Your task to perform on an android device: Search for lg ultragear on amazon, select the first entry, add it to the cart, then select checkout. Image 0: 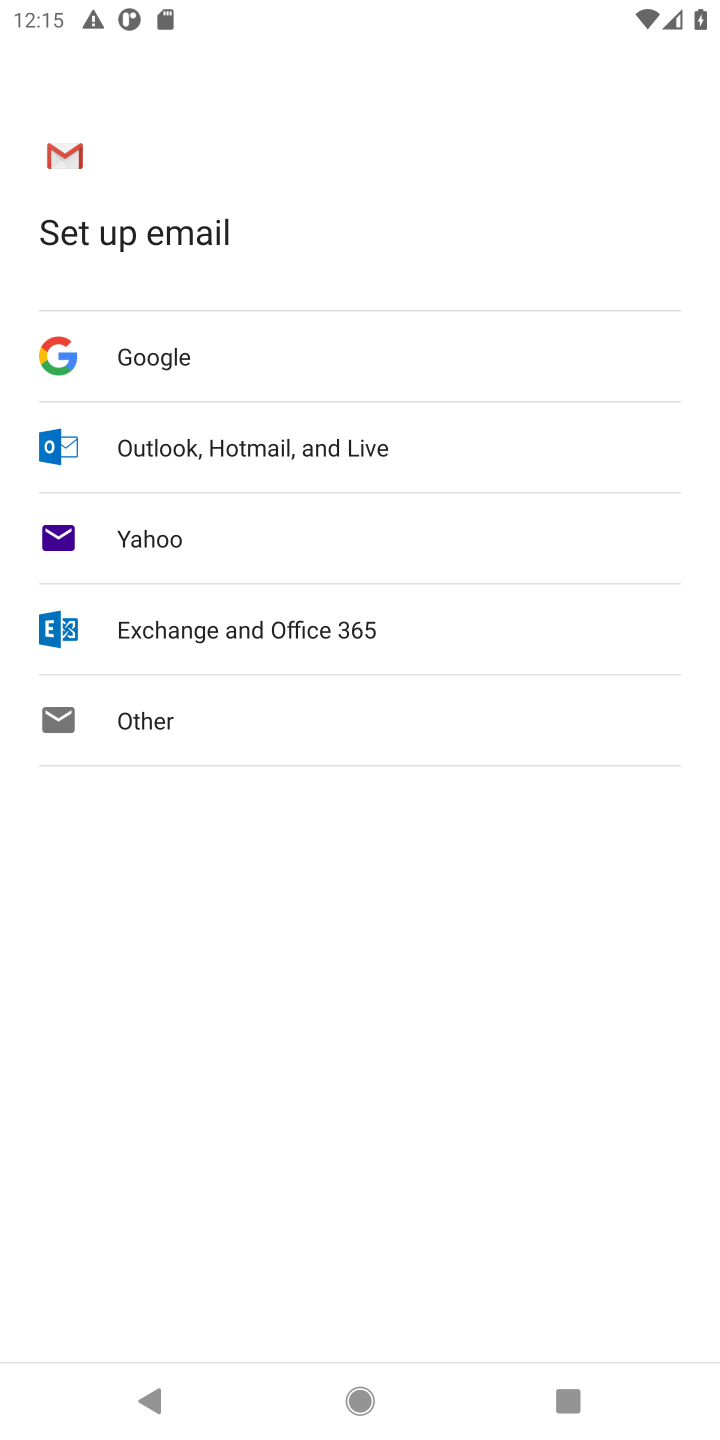
Step 0: press home button
Your task to perform on an android device: Search for lg ultragear on amazon, select the first entry, add it to the cart, then select checkout. Image 1: 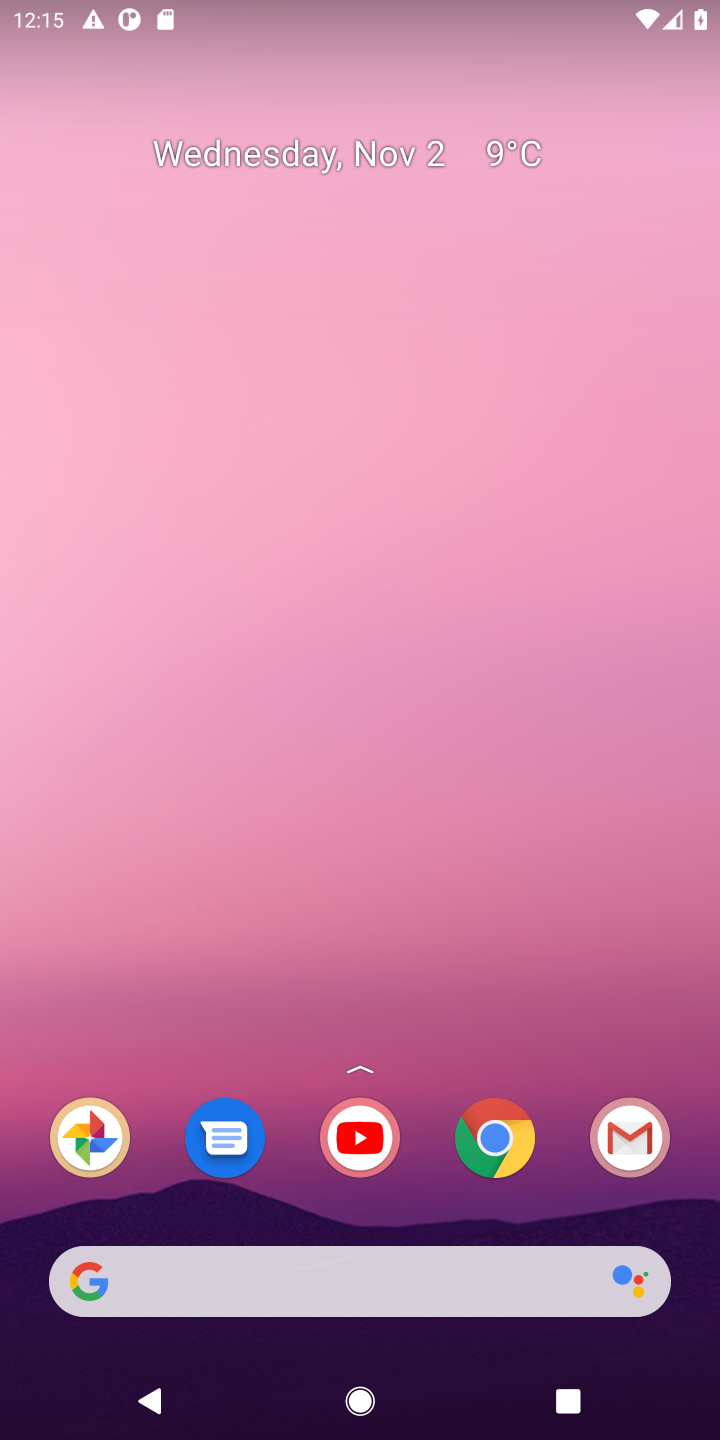
Step 1: click (457, 1281)
Your task to perform on an android device: Search for lg ultragear on amazon, select the first entry, add it to the cart, then select checkout. Image 2: 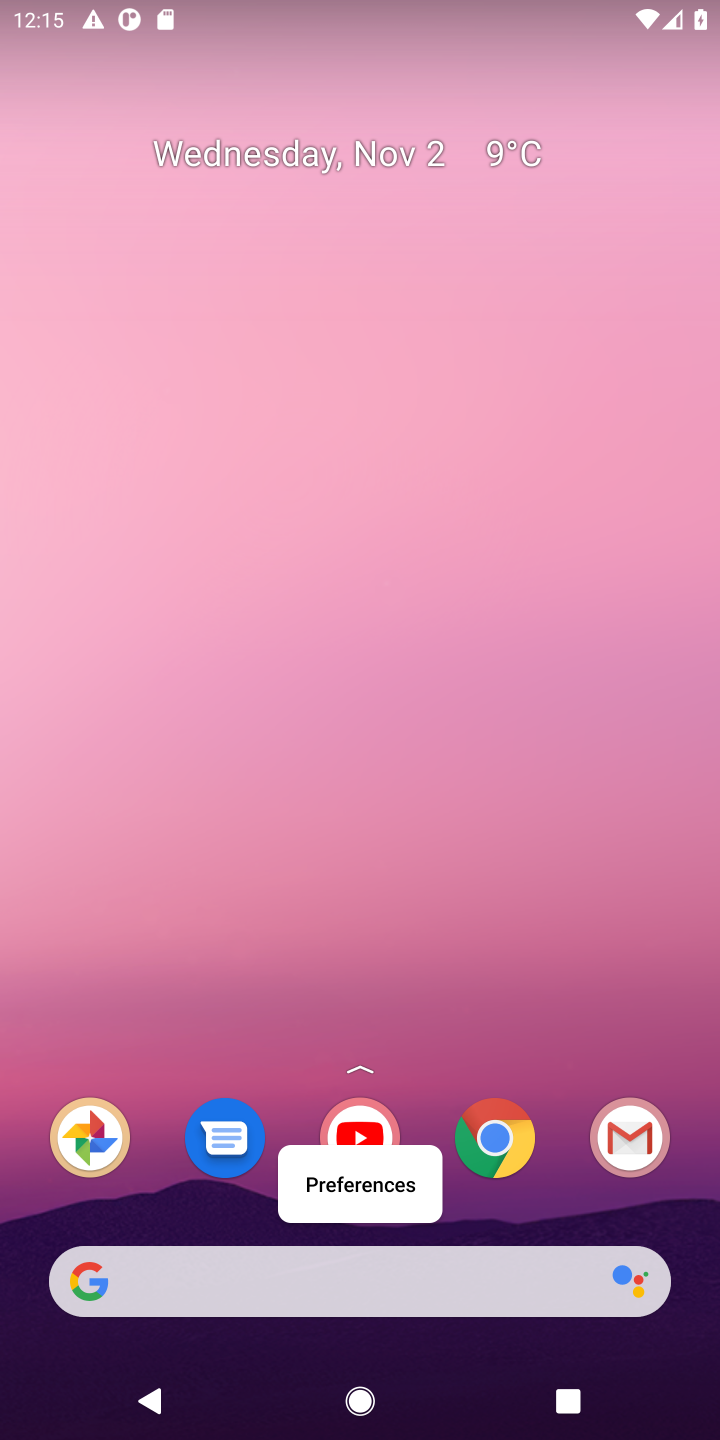
Step 2: click (397, 1294)
Your task to perform on an android device: Search for lg ultragear on amazon, select the first entry, add it to the cart, then select checkout. Image 3: 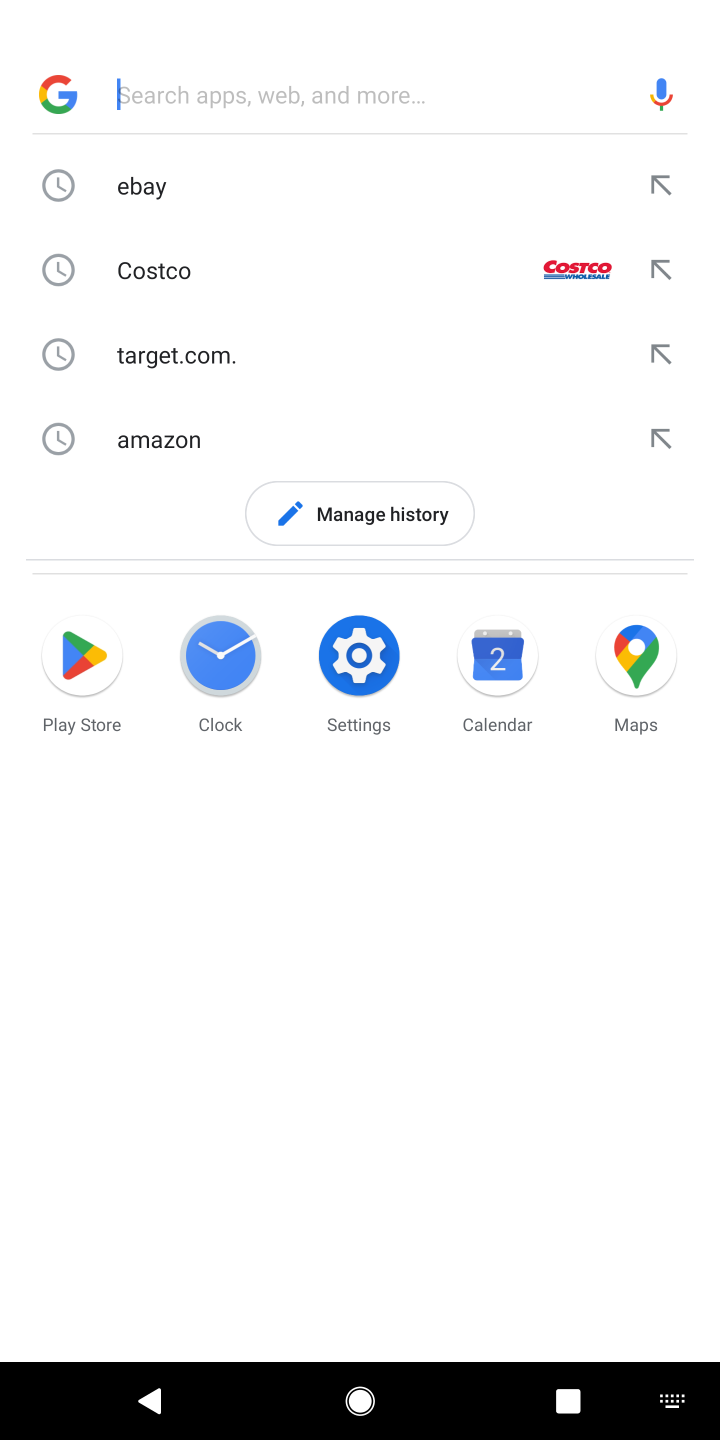
Step 3: click (130, 422)
Your task to perform on an android device: Search for lg ultragear on amazon, select the first entry, add it to the cart, then select checkout. Image 4: 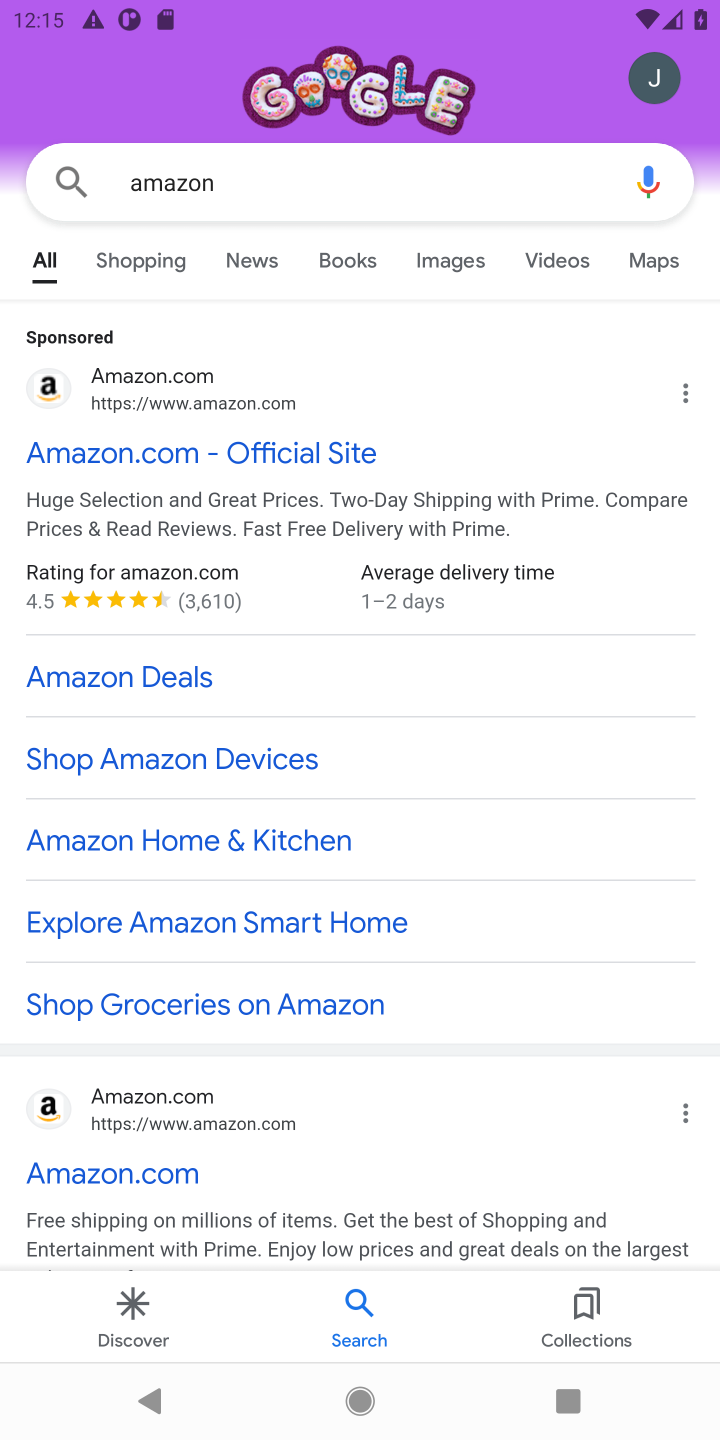
Step 4: click (97, 436)
Your task to perform on an android device: Search for lg ultragear on amazon, select the first entry, add it to the cart, then select checkout. Image 5: 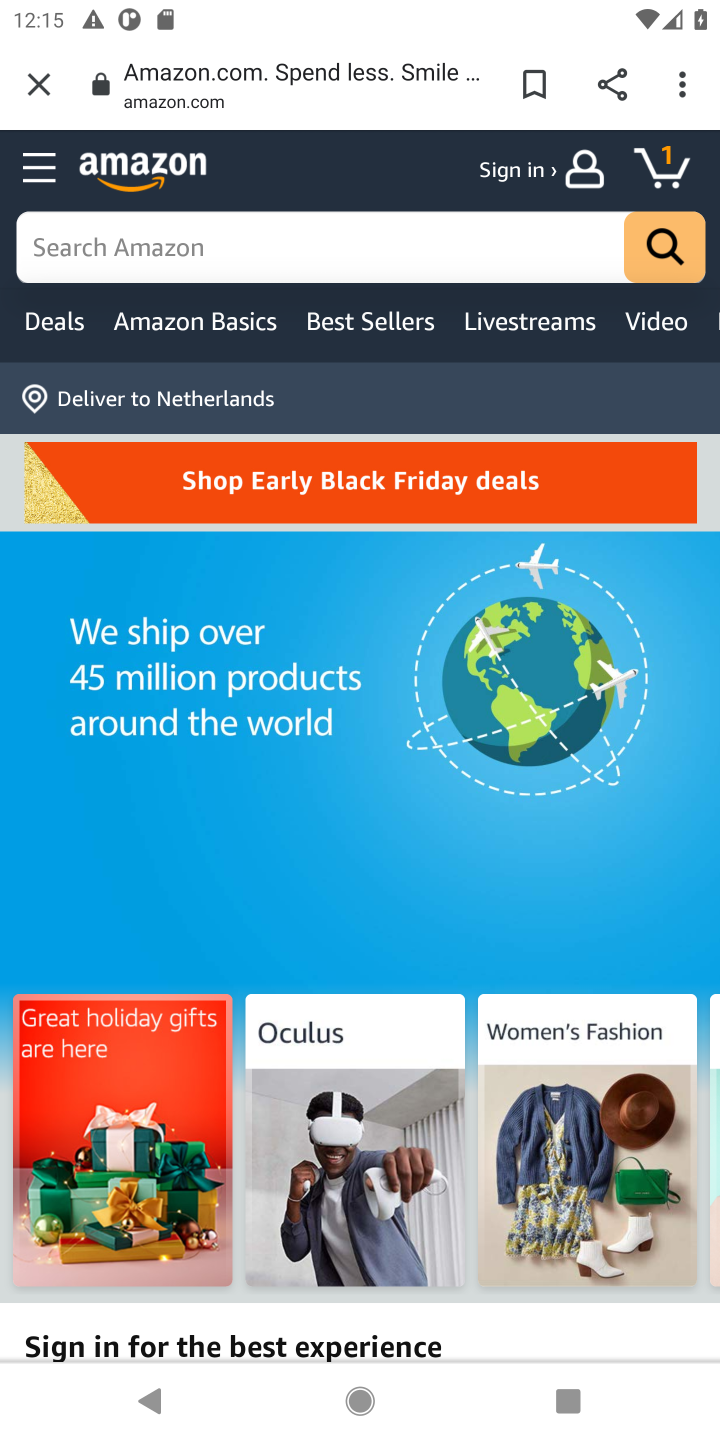
Step 5: click (273, 266)
Your task to perform on an android device: Search for lg ultragear on amazon, select the first entry, add it to the cart, then select checkout. Image 6: 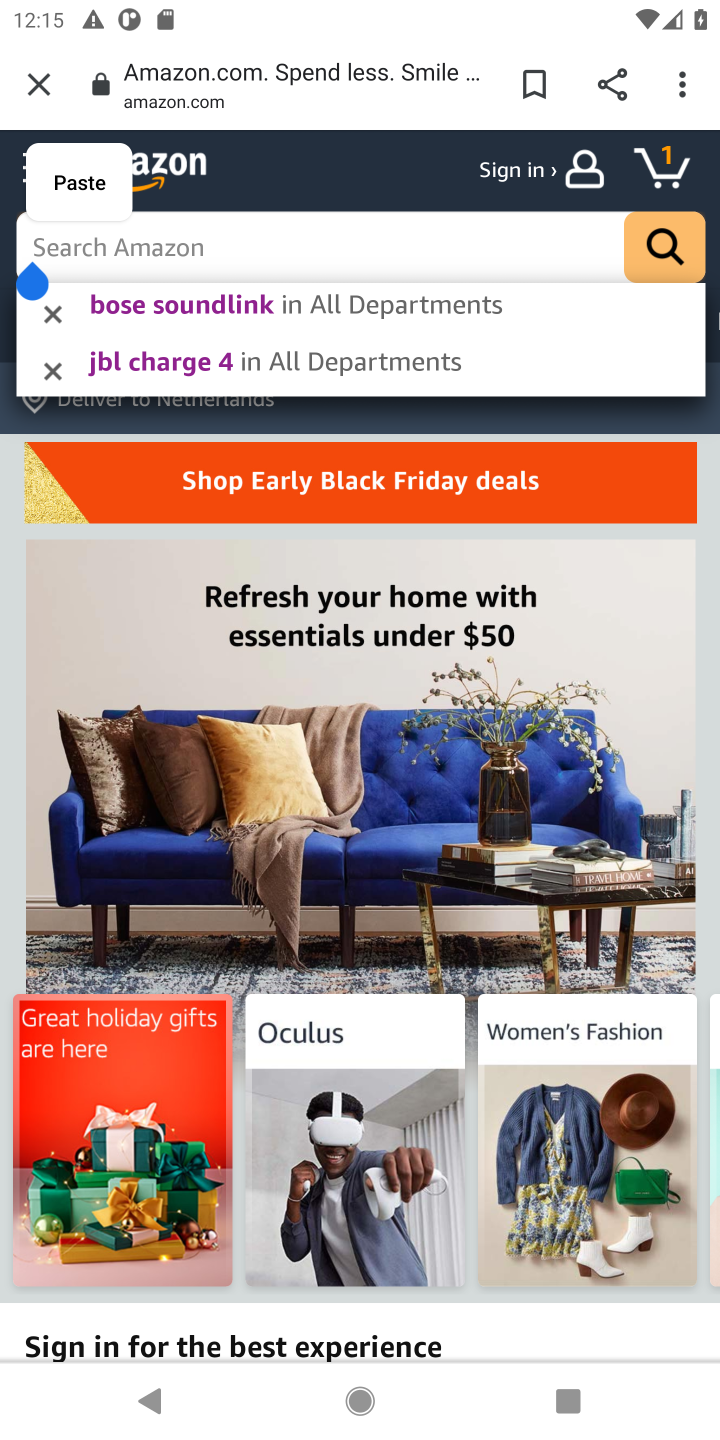
Step 6: click (700, 1270)
Your task to perform on an android device: Search for lg ultragear on amazon, select the first entry, add it to the cart, then select checkout. Image 7: 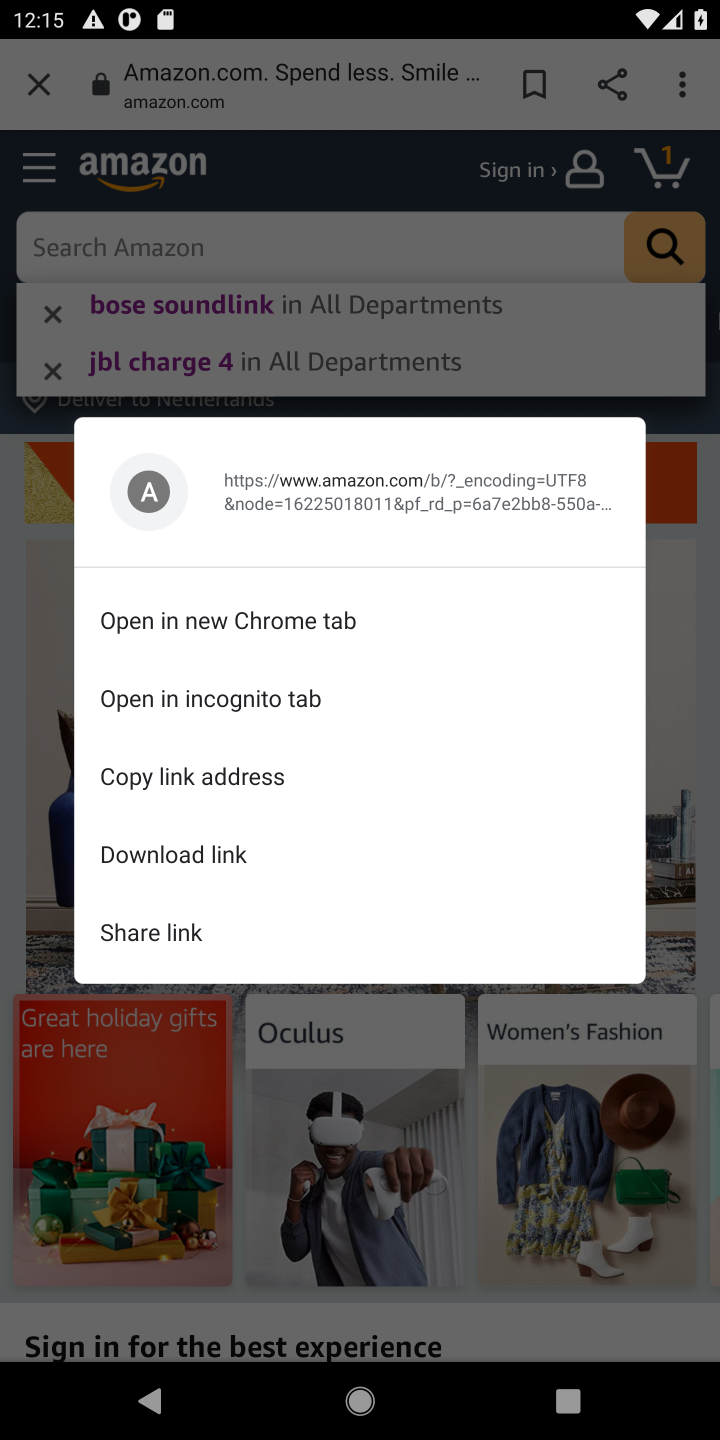
Step 7: type "lg ultragear"
Your task to perform on an android device: Search for lg ultragear on amazon, select the first entry, add it to the cart, then select checkout. Image 8: 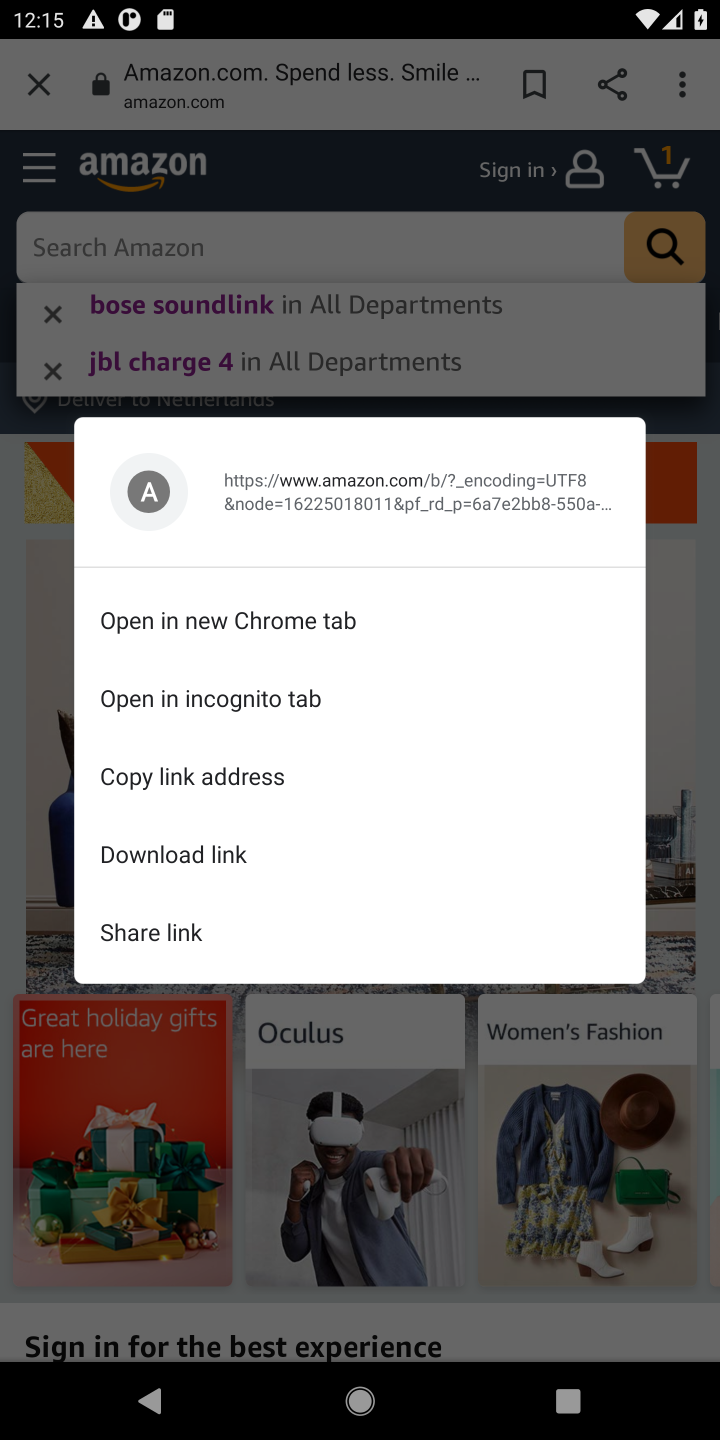
Step 8: click (674, 778)
Your task to perform on an android device: Search for lg ultragear on amazon, select the first entry, add it to the cart, then select checkout. Image 9: 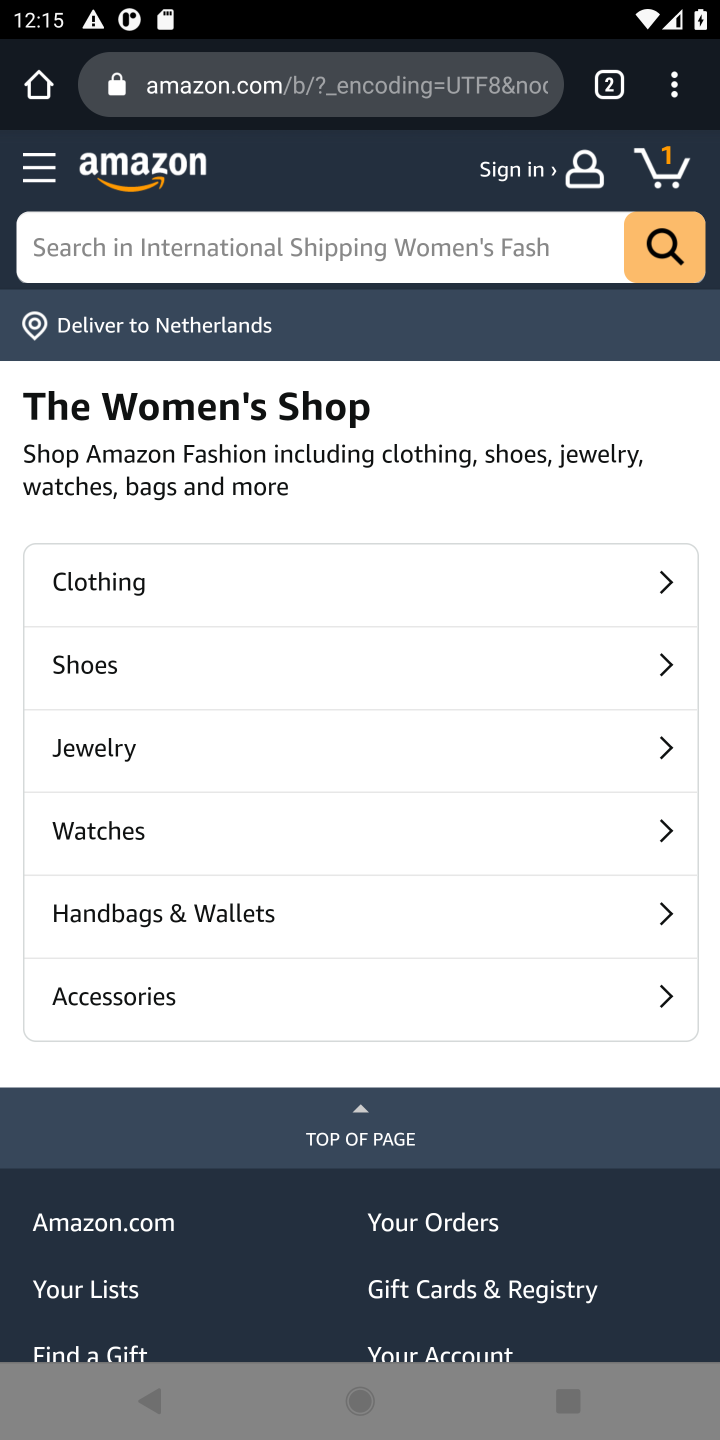
Step 9: click (415, 240)
Your task to perform on an android device: Search for lg ultragear on amazon, select the first entry, add it to the cart, then select checkout. Image 10: 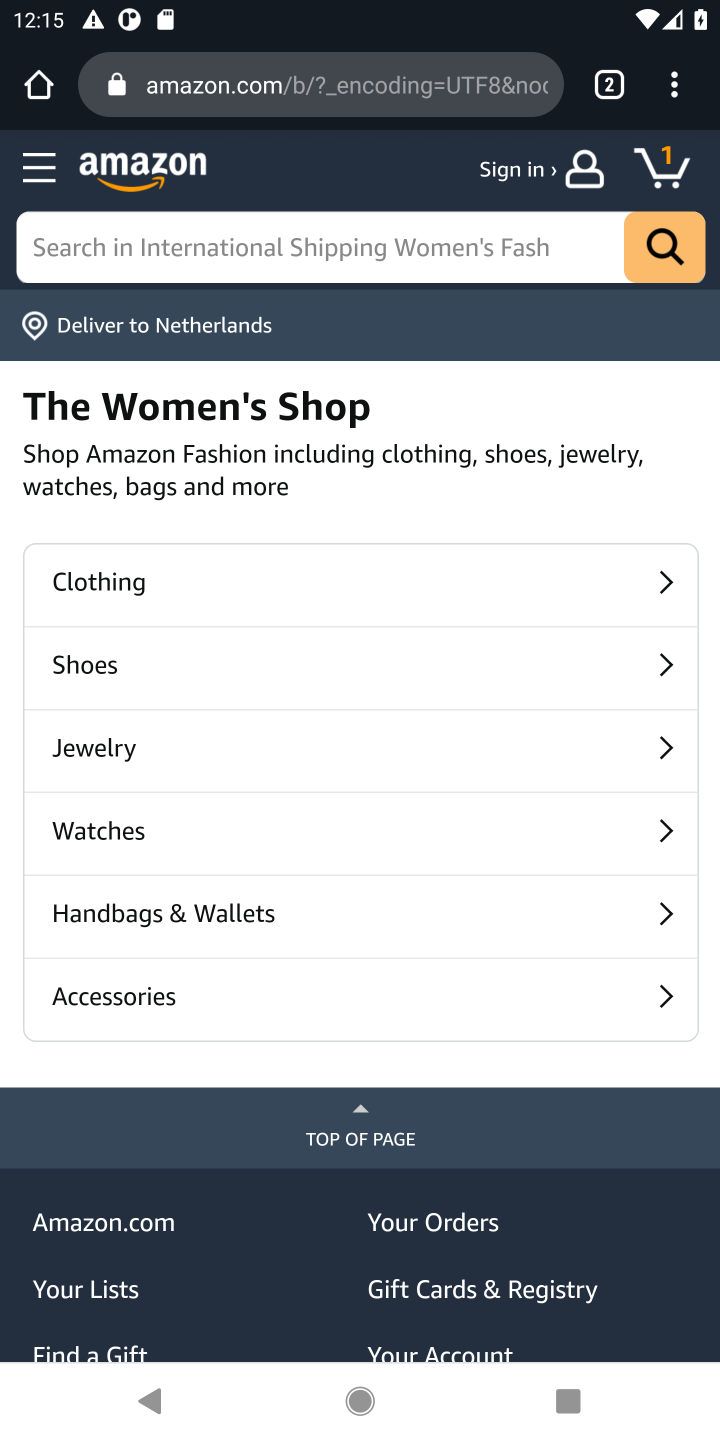
Step 10: click (208, 242)
Your task to perform on an android device: Search for lg ultragear on amazon, select the first entry, add it to the cart, then select checkout. Image 11: 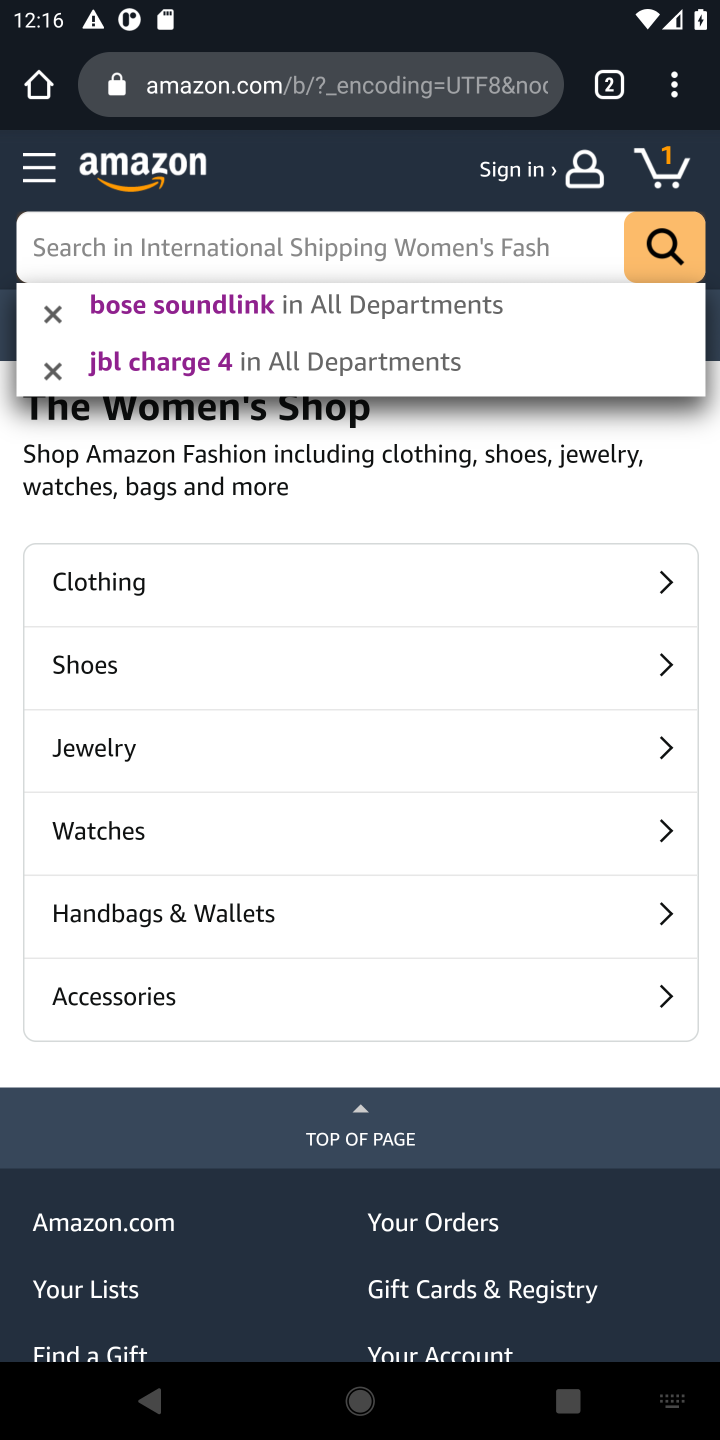
Step 11: type "lg ultragear"
Your task to perform on an android device: Search for lg ultragear on amazon, select the first entry, add it to the cart, then select checkout. Image 12: 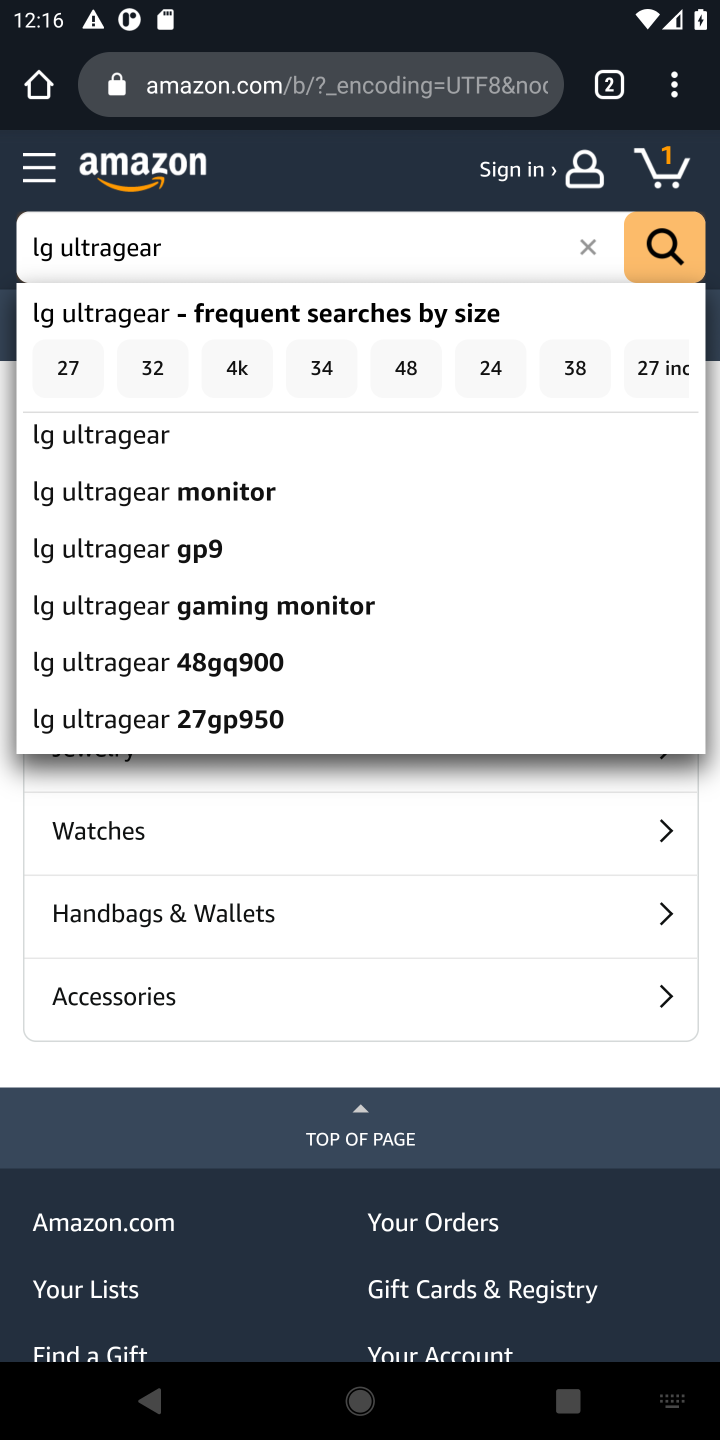
Step 12: click (667, 254)
Your task to perform on an android device: Search for lg ultragear on amazon, select the first entry, add it to the cart, then select checkout. Image 13: 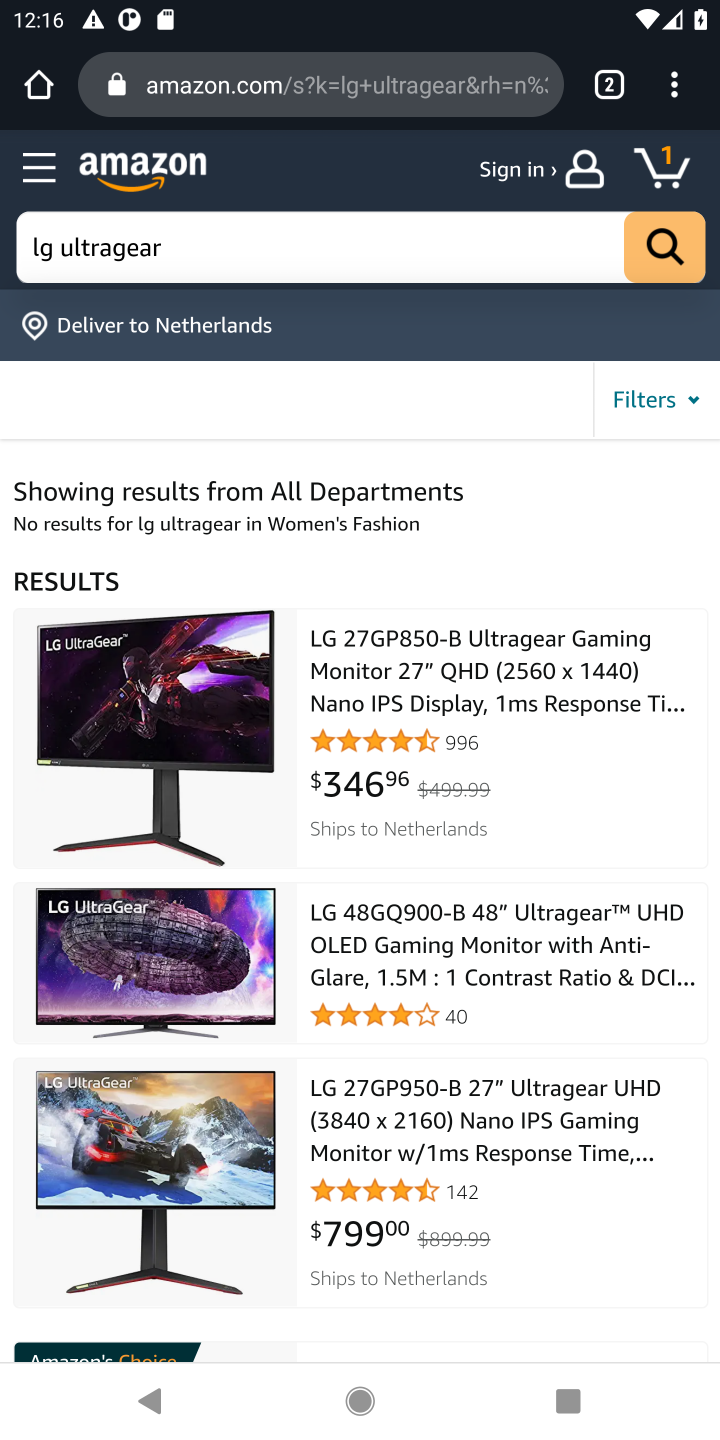
Step 13: click (501, 673)
Your task to perform on an android device: Search for lg ultragear on amazon, select the first entry, add it to the cart, then select checkout. Image 14: 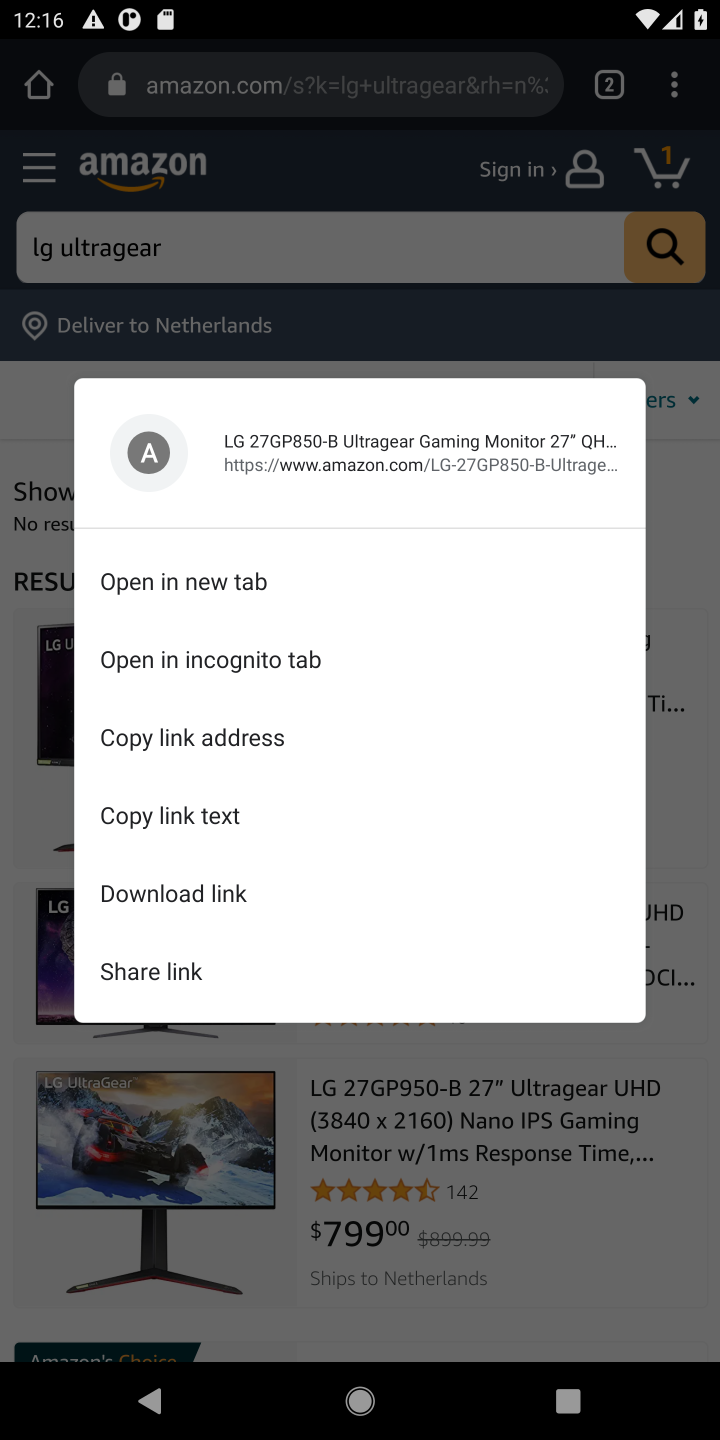
Step 14: click (695, 572)
Your task to perform on an android device: Search for lg ultragear on amazon, select the first entry, add it to the cart, then select checkout. Image 15: 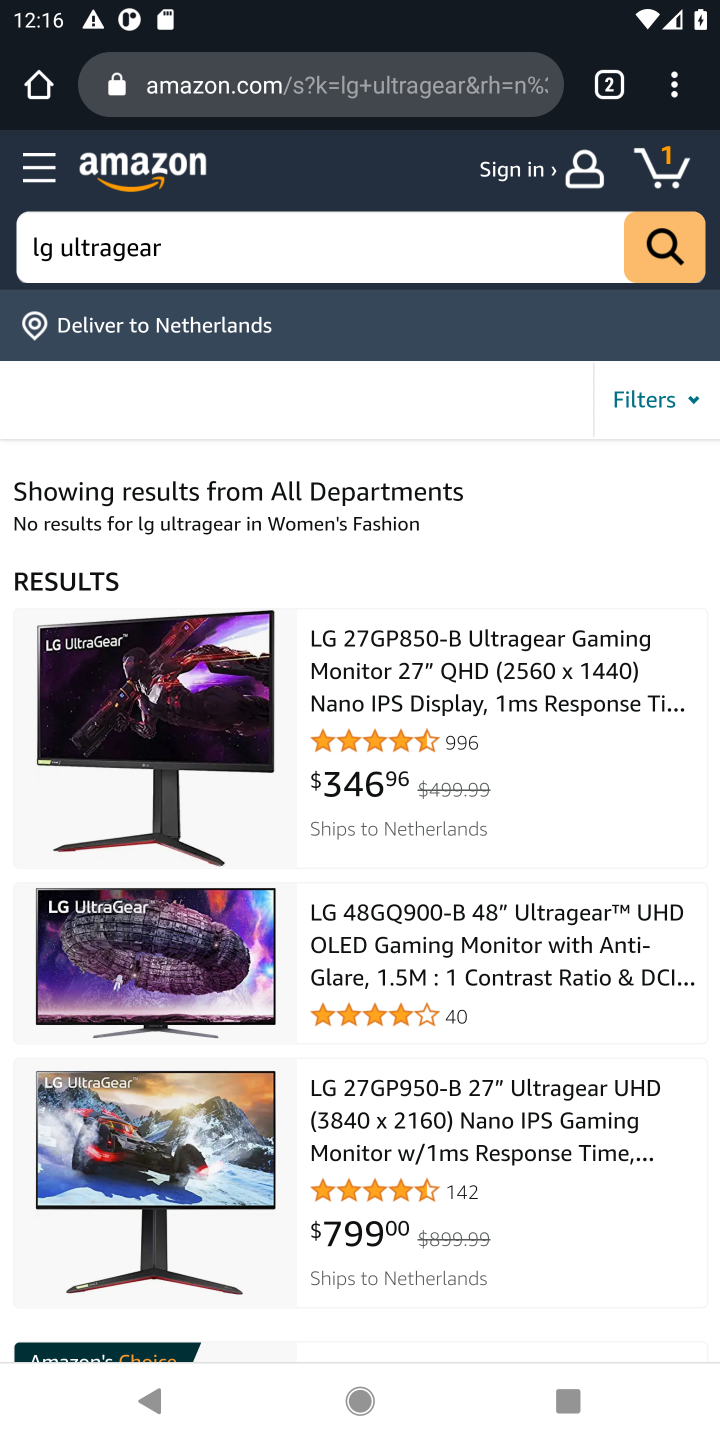
Step 15: click (576, 693)
Your task to perform on an android device: Search for lg ultragear on amazon, select the first entry, add it to the cart, then select checkout. Image 16: 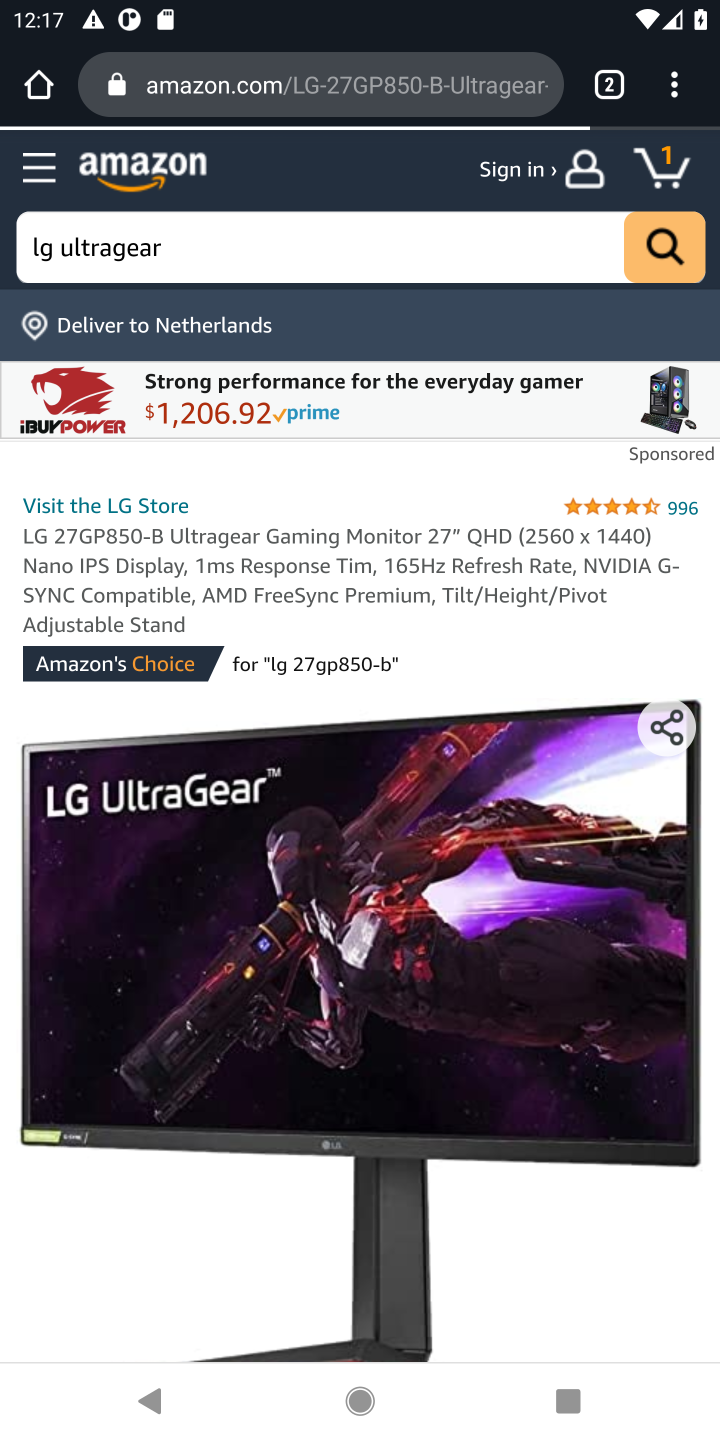
Step 16: drag from (547, 720) to (519, 526)
Your task to perform on an android device: Search for lg ultragear on amazon, select the first entry, add it to the cart, then select checkout. Image 17: 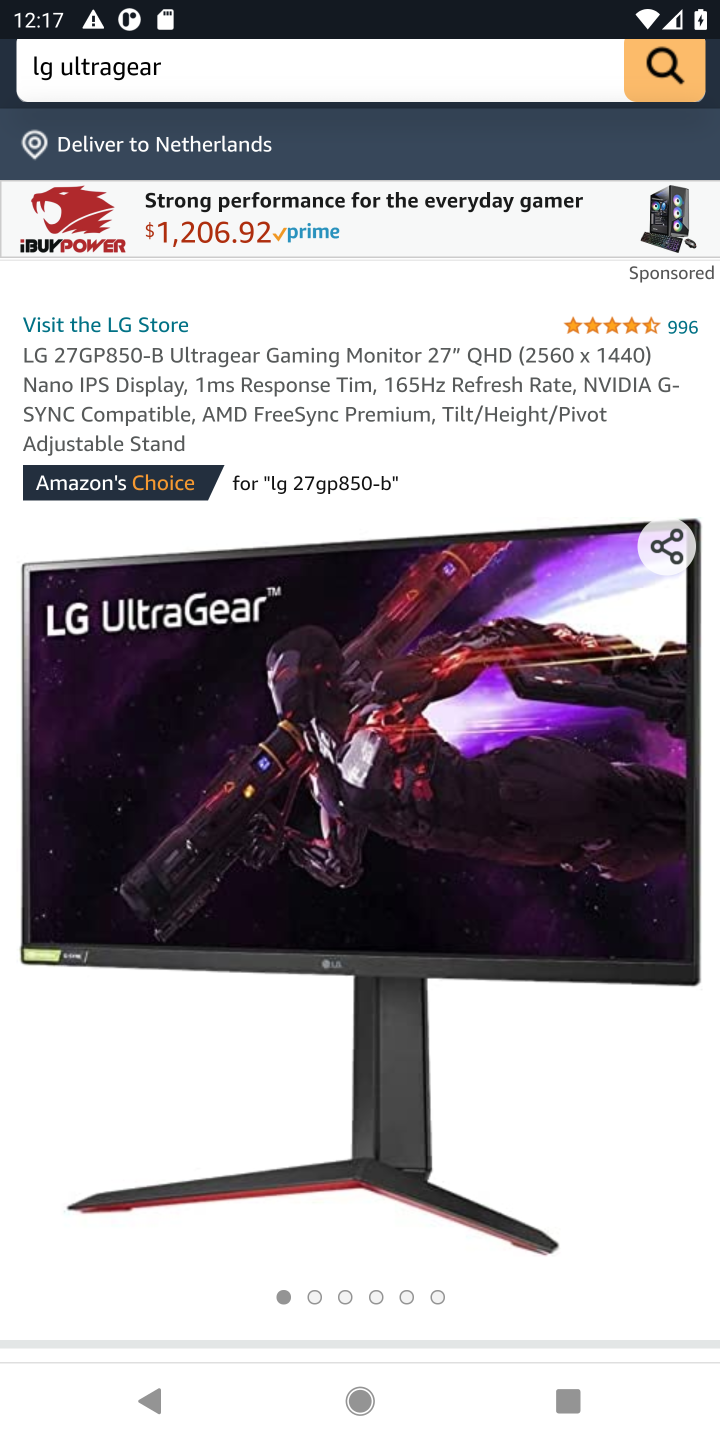
Step 17: drag from (542, 1050) to (492, 535)
Your task to perform on an android device: Search for lg ultragear on amazon, select the first entry, add it to the cart, then select checkout. Image 18: 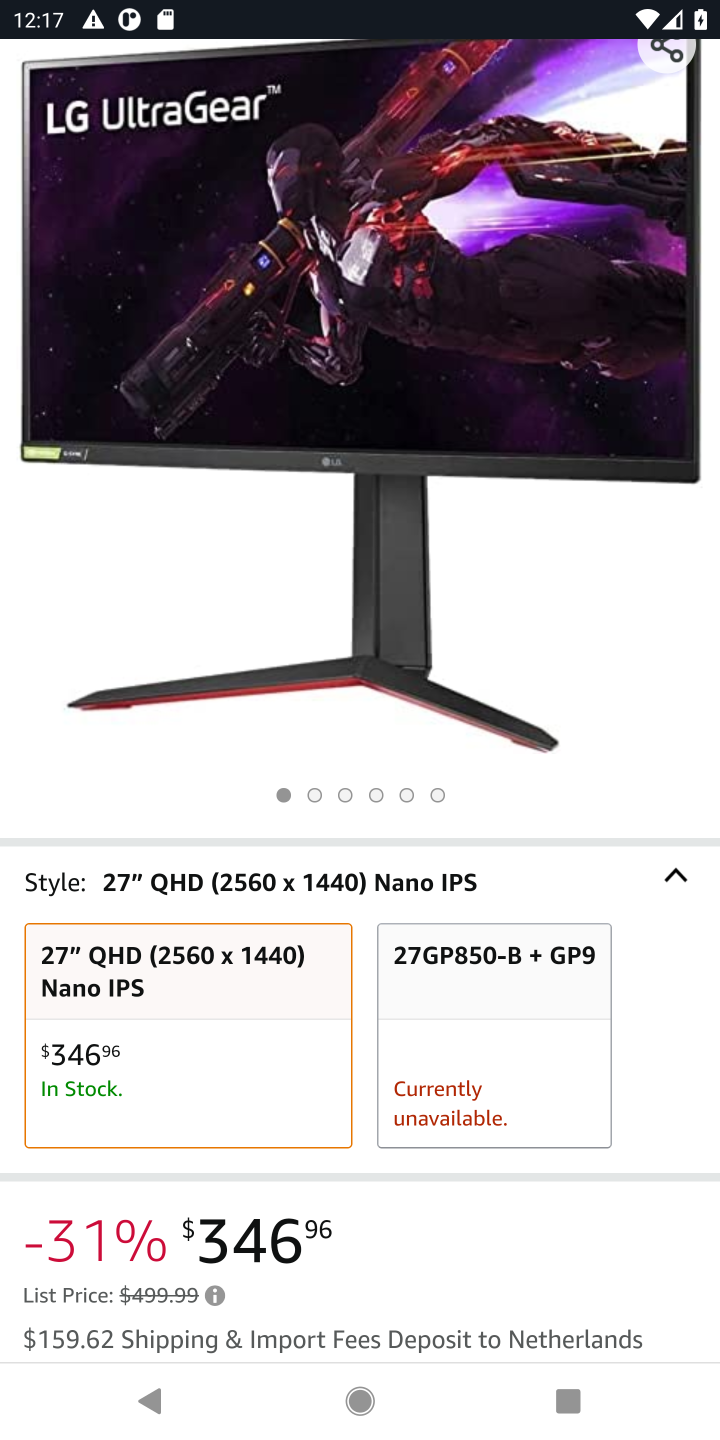
Step 18: drag from (545, 1231) to (480, 663)
Your task to perform on an android device: Search for lg ultragear on amazon, select the first entry, add it to the cart, then select checkout. Image 19: 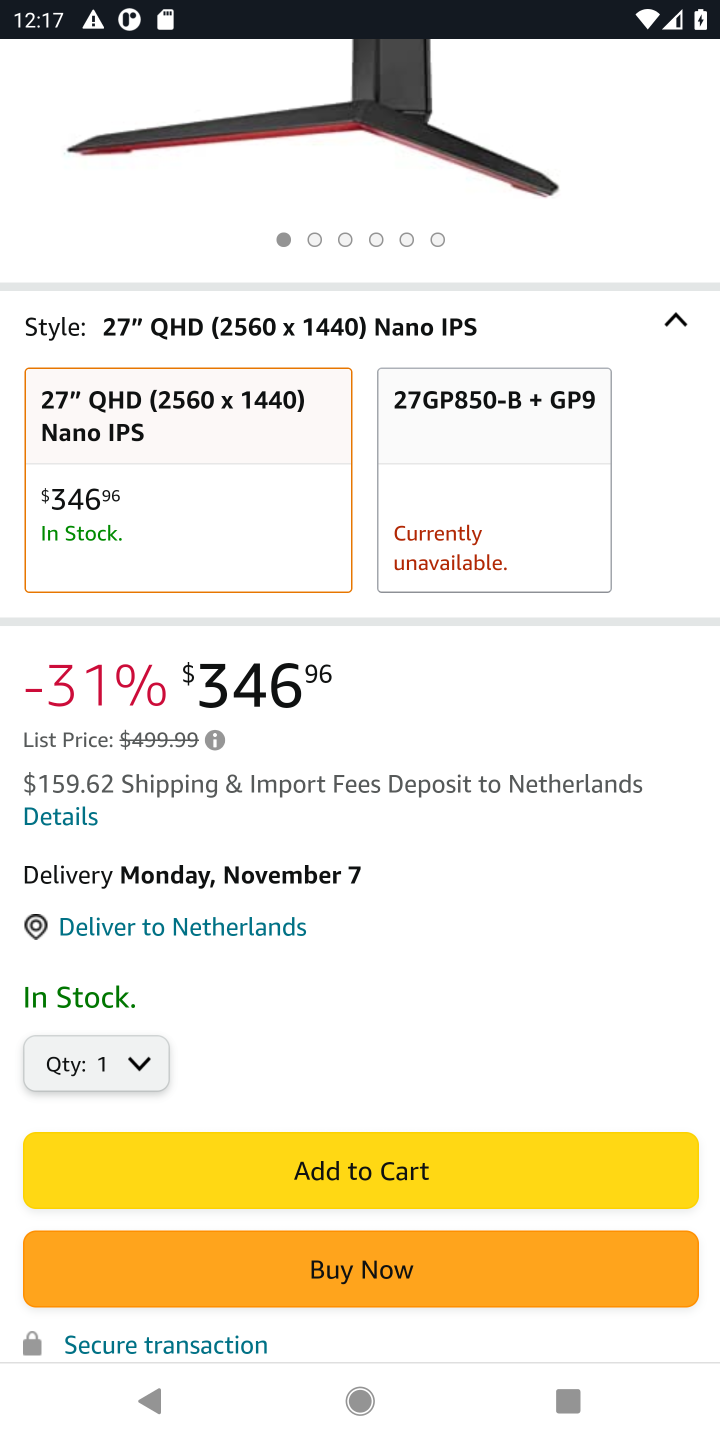
Step 19: click (380, 1174)
Your task to perform on an android device: Search for lg ultragear on amazon, select the first entry, add it to the cart, then select checkout. Image 20: 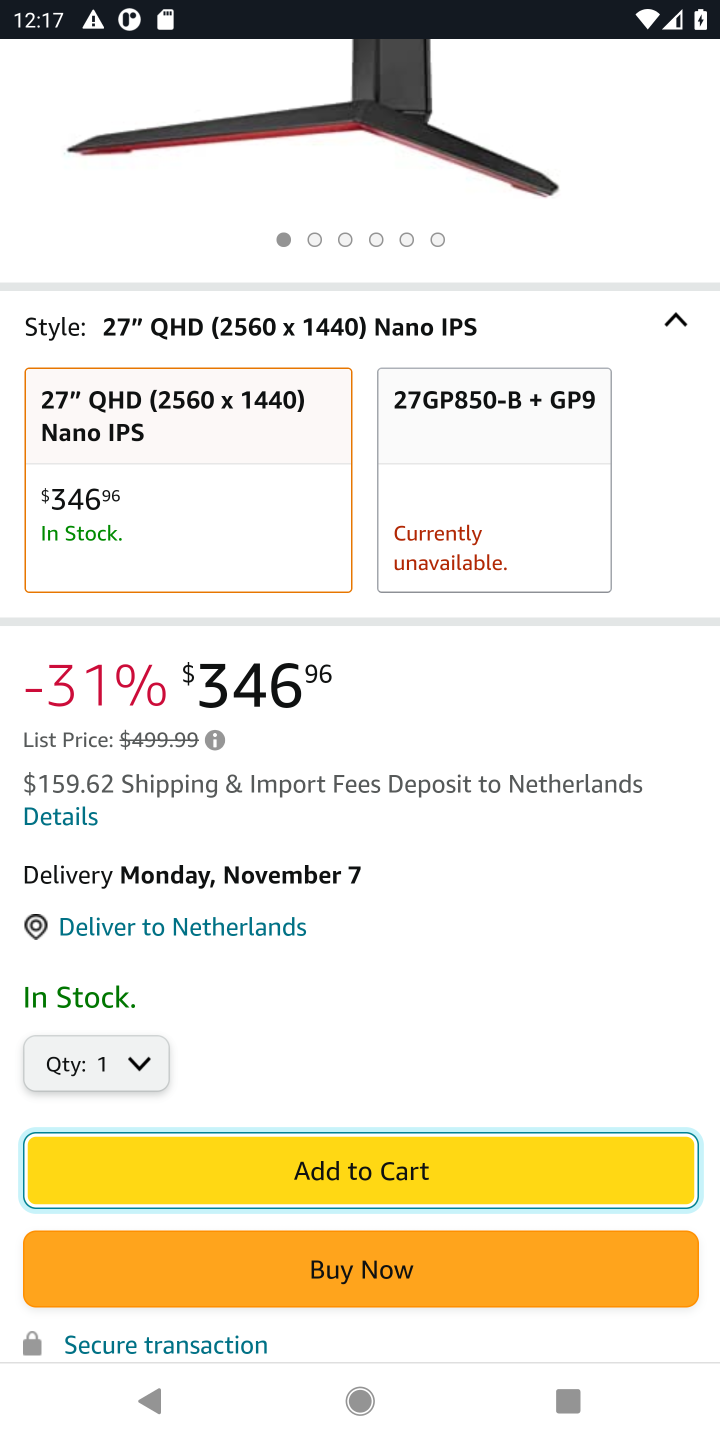
Step 20: drag from (564, 757) to (512, 1247)
Your task to perform on an android device: Search for lg ultragear on amazon, select the first entry, add it to the cart, then select checkout. Image 21: 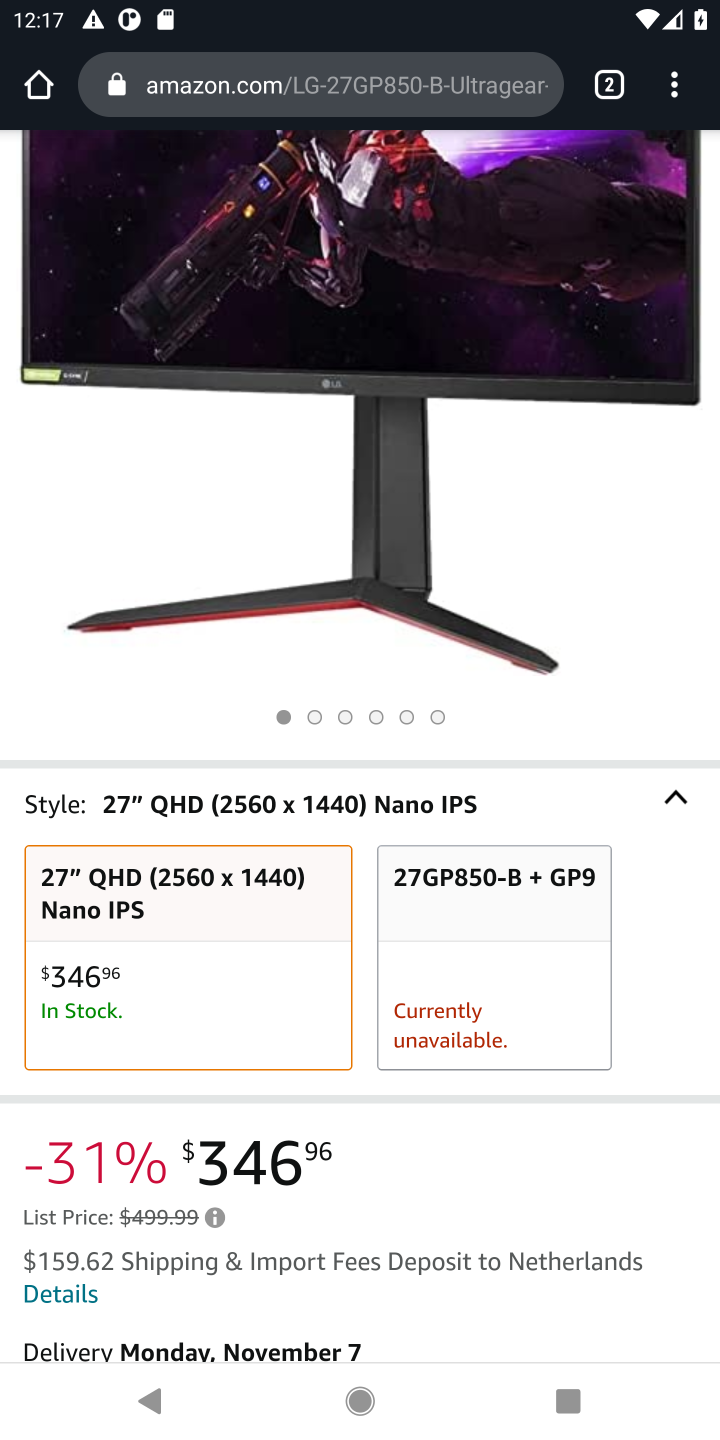
Step 21: drag from (503, 490) to (502, 1148)
Your task to perform on an android device: Search for lg ultragear on amazon, select the first entry, add it to the cart, then select checkout. Image 22: 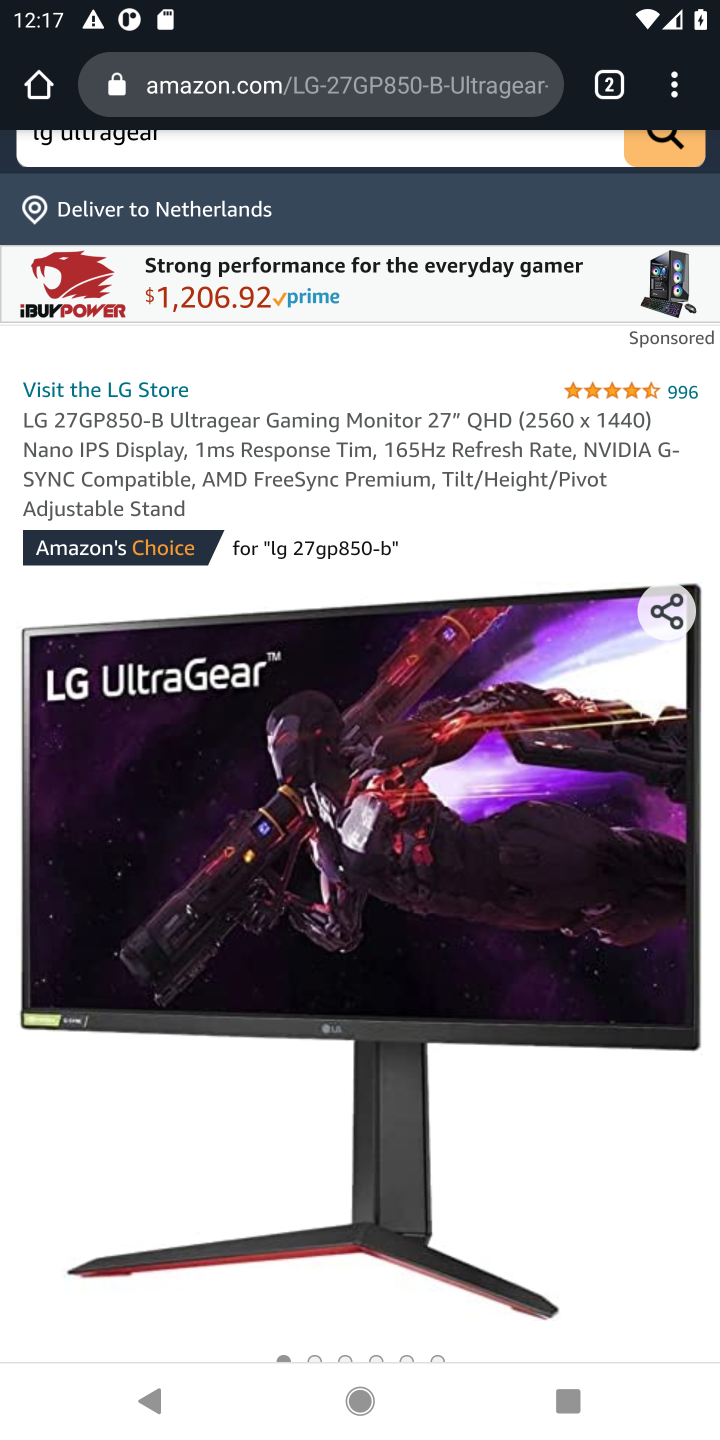
Step 22: drag from (534, 345) to (567, 1015)
Your task to perform on an android device: Search for lg ultragear on amazon, select the first entry, add it to the cart, then select checkout. Image 23: 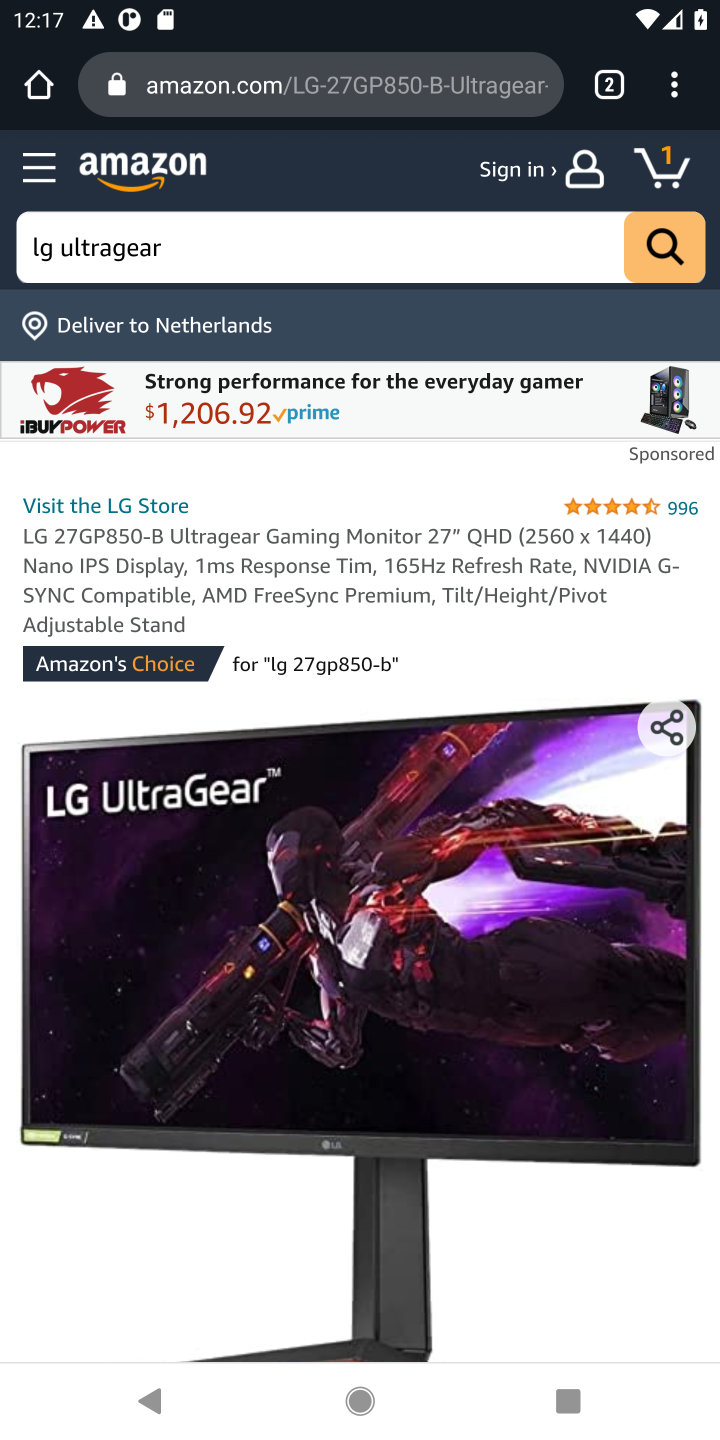
Step 23: click (657, 164)
Your task to perform on an android device: Search for lg ultragear on amazon, select the first entry, add it to the cart, then select checkout. Image 24: 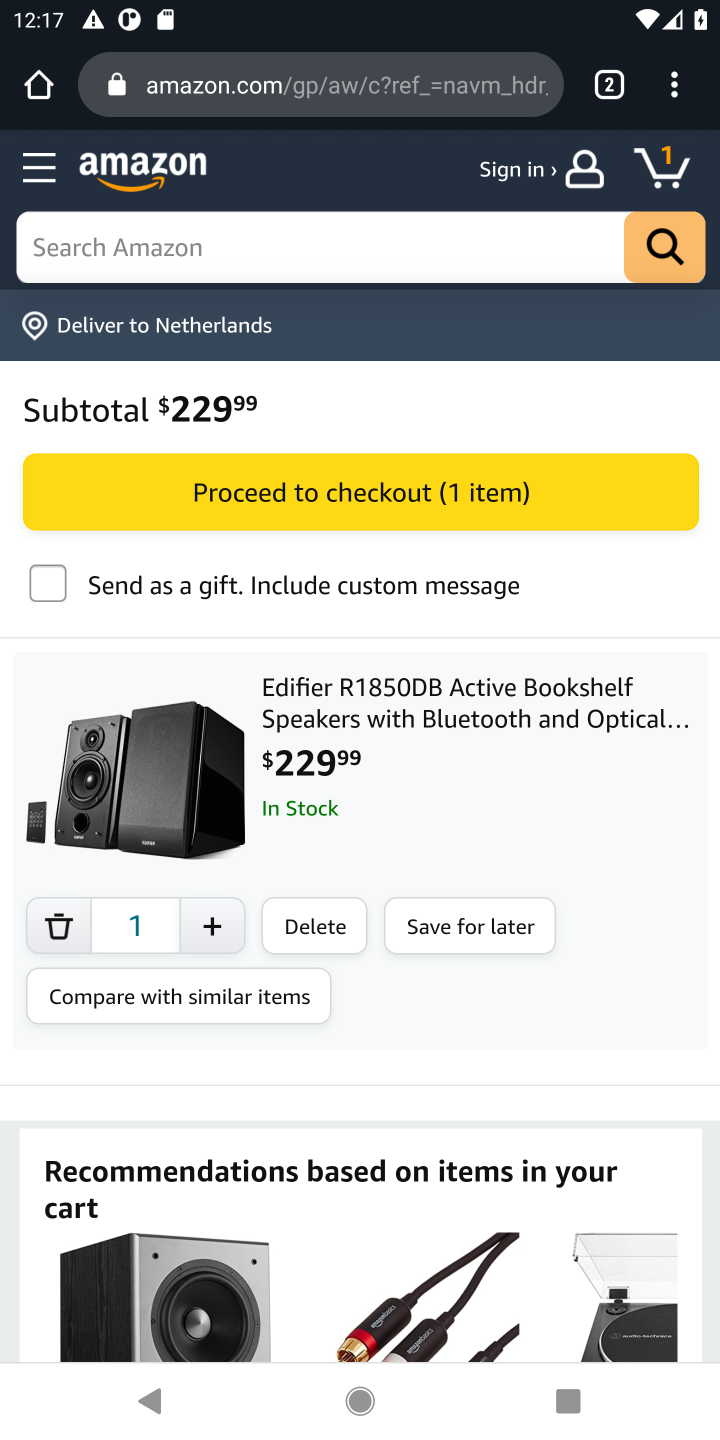
Step 24: click (374, 759)
Your task to perform on an android device: Search for lg ultragear on amazon, select the first entry, add it to the cart, then select checkout. Image 25: 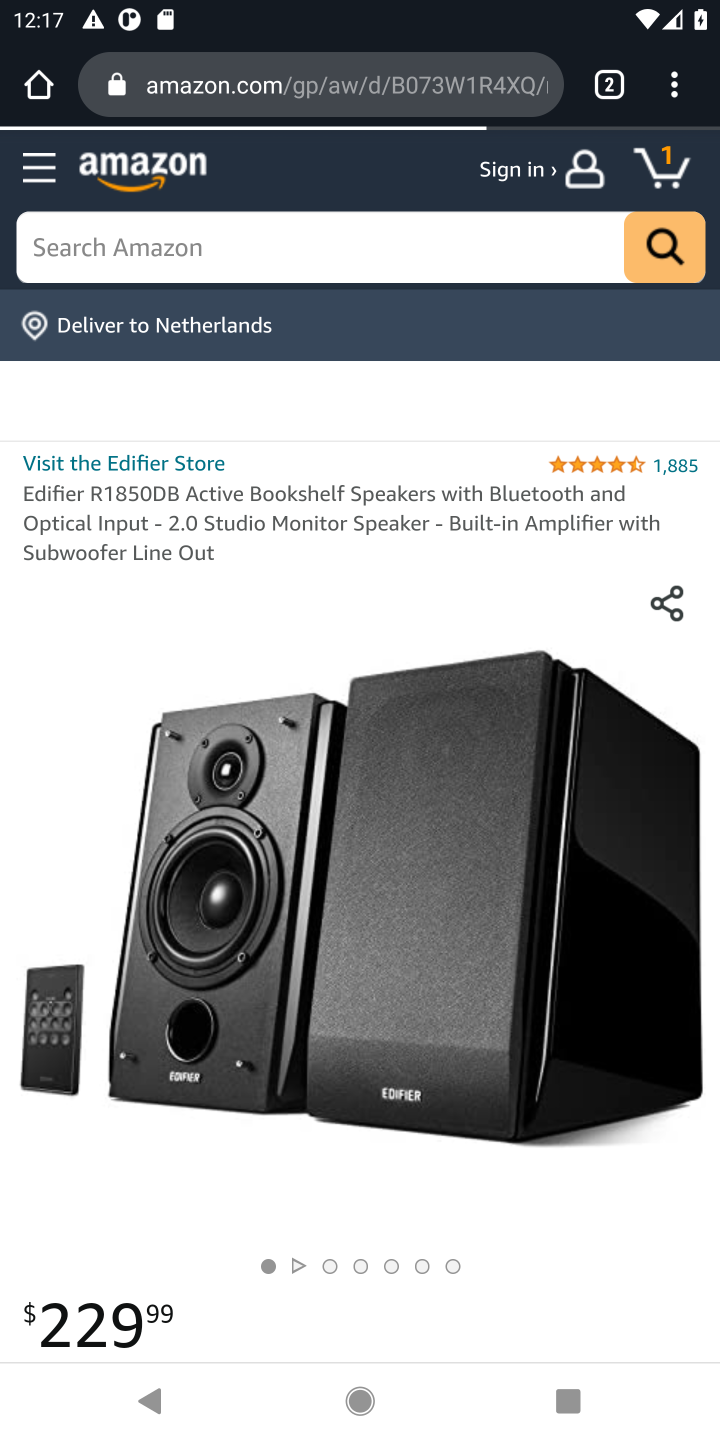
Step 25: drag from (477, 1216) to (510, 588)
Your task to perform on an android device: Search for lg ultragear on amazon, select the first entry, add it to the cart, then select checkout. Image 26: 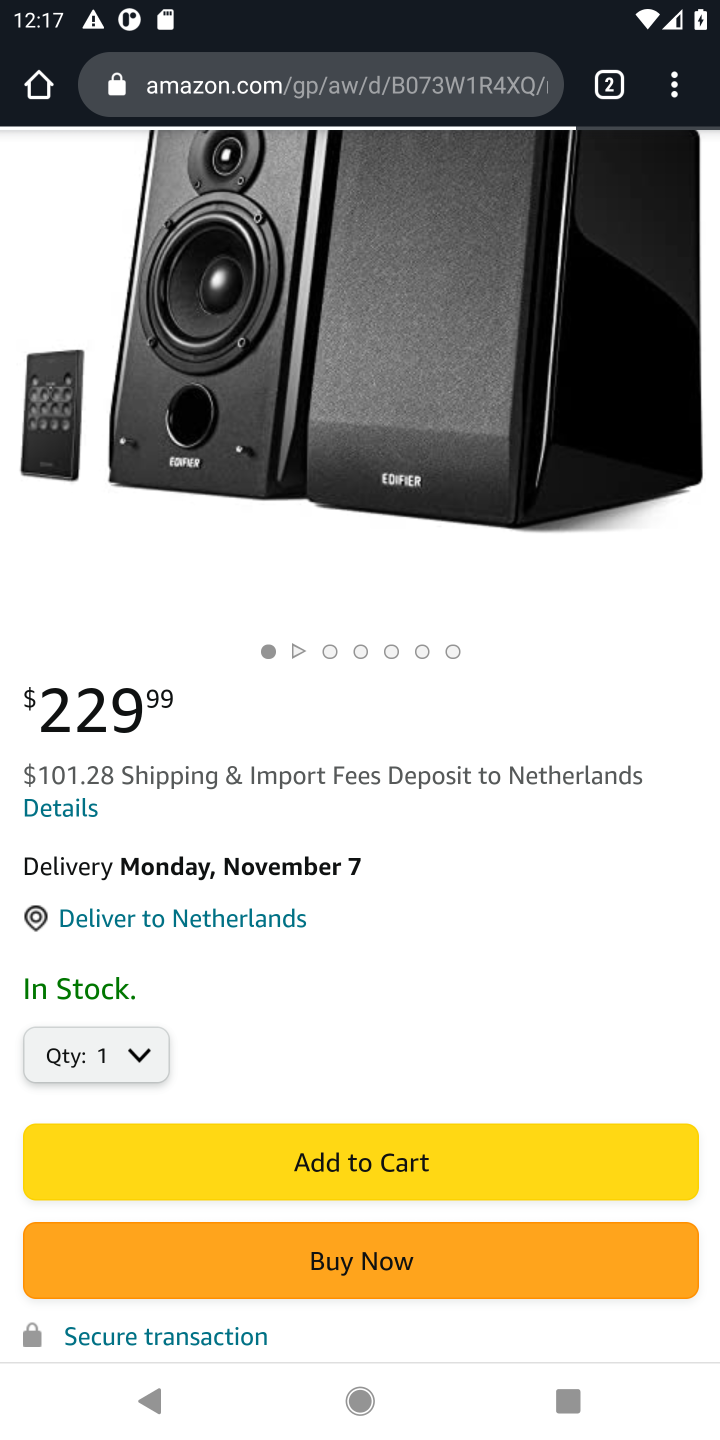
Step 26: click (328, 1146)
Your task to perform on an android device: Search for lg ultragear on amazon, select the first entry, add it to the cart, then select checkout. Image 27: 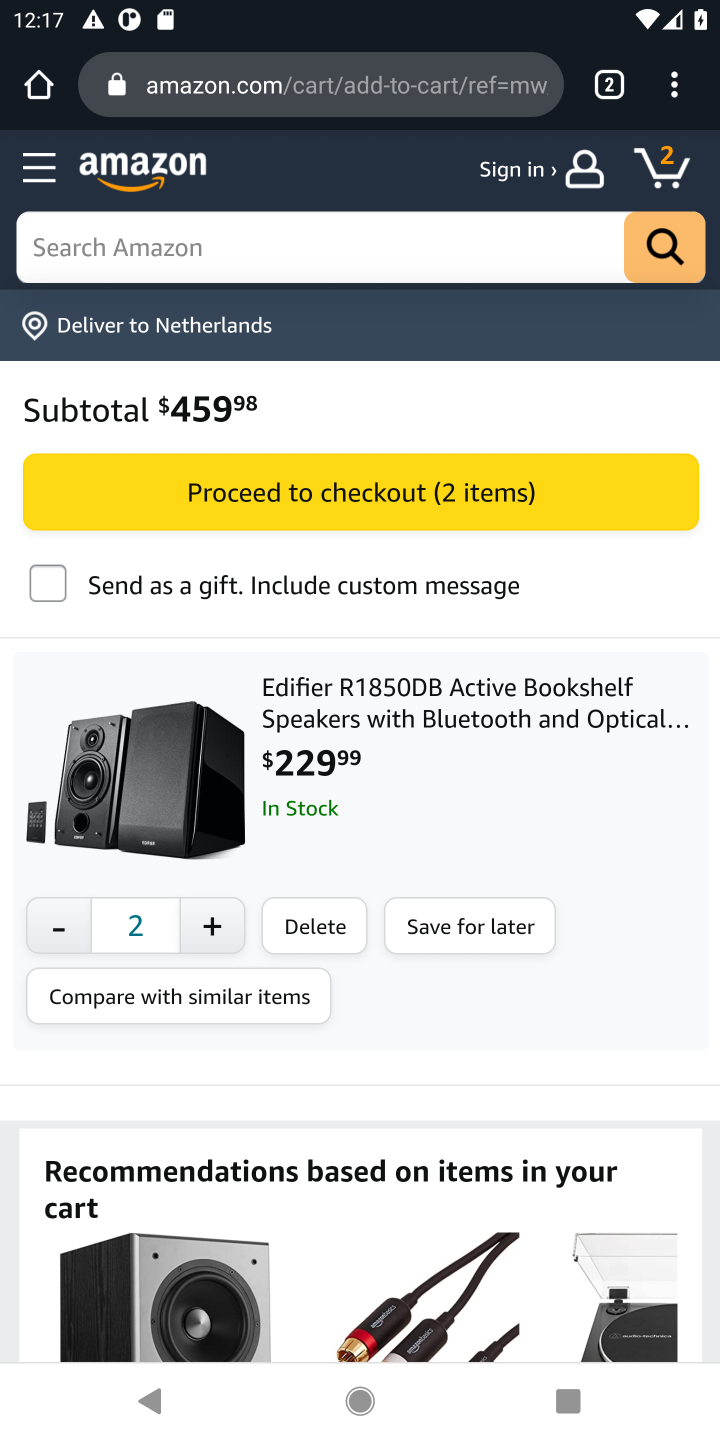
Step 27: click (367, 509)
Your task to perform on an android device: Search for lg ultragear on amazon, select the first entry, add it to the cart, then select checkout. Image 28: 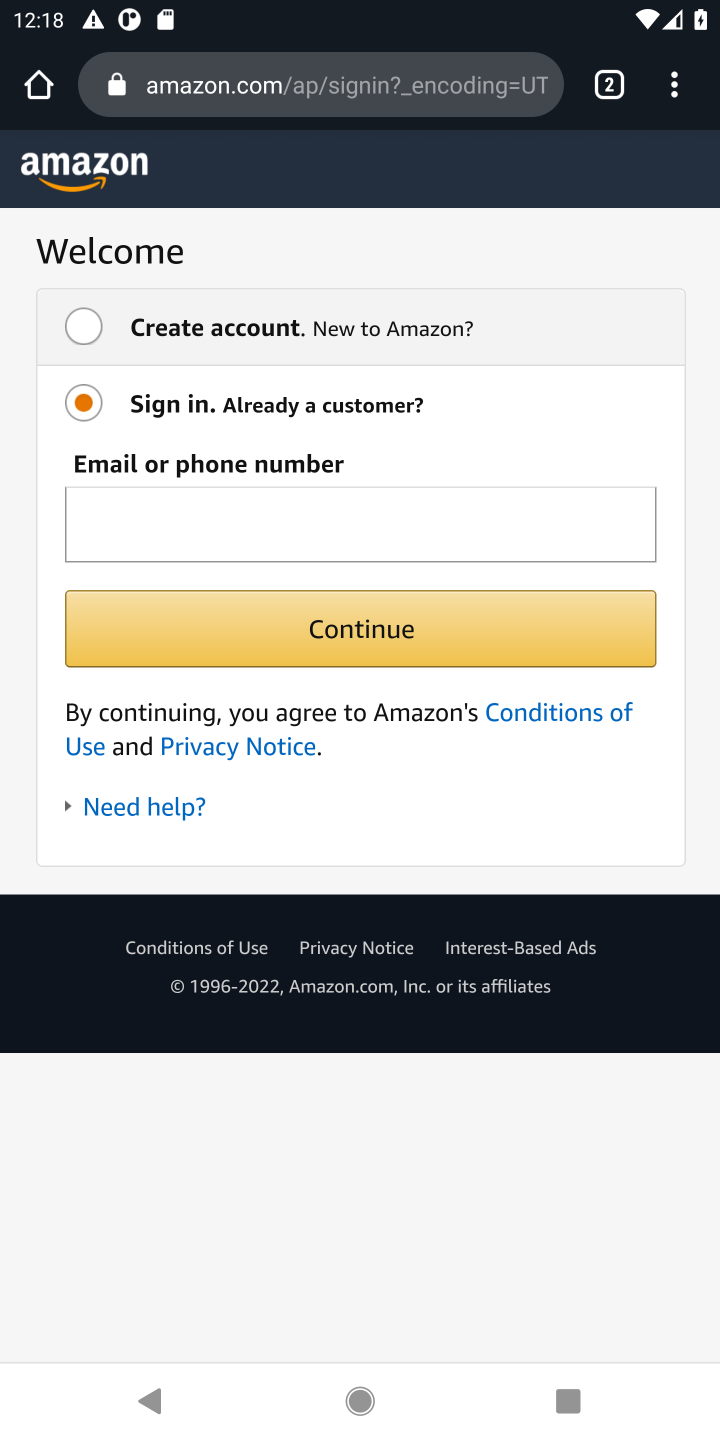
Step 28: task complete